Your task to perform on an android device: turn off picture-in-picture Image 0: 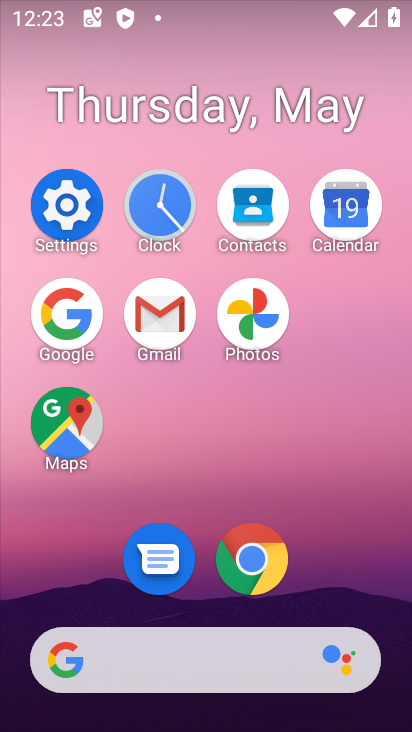
Step 0: click (243, 565)
Your task to perform on an android device: turn off picture-in-picture Image 1: 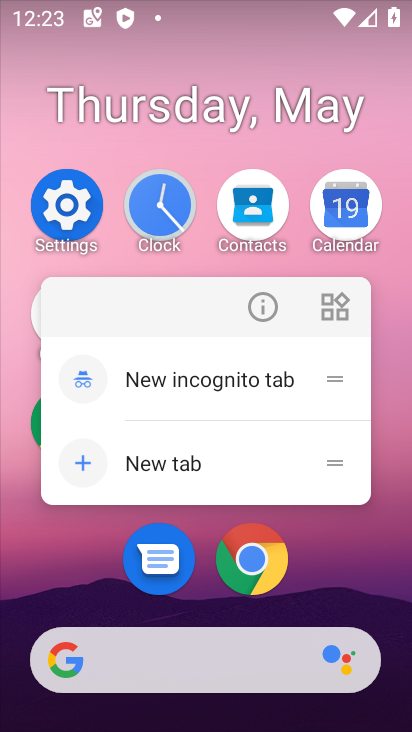
Step 1: click (277, 317)
Your task to perform on an android device: turn off picture-in-picture Image 2: 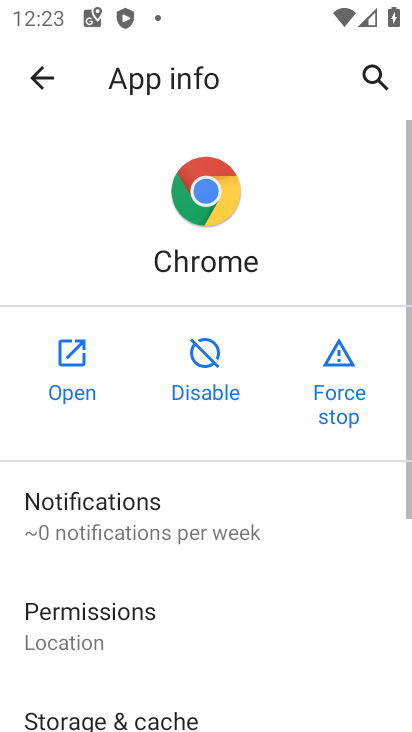
Step 2: drag from (160, 599) to (412, 101)
Your task to perform on an android device: turn off picture-in-picture Image 3: 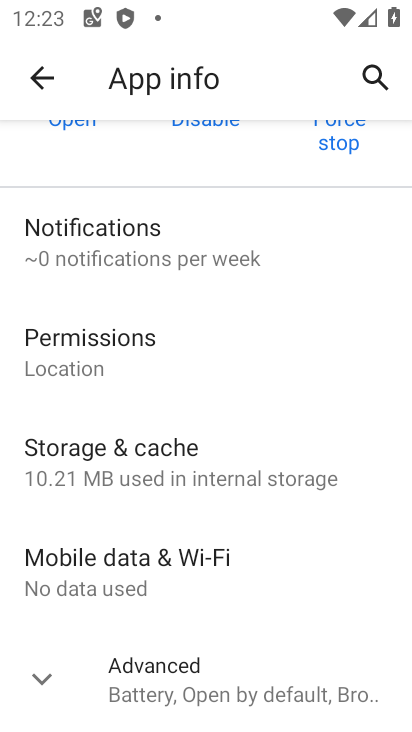
Step 3: click (144, 678)
Your task to perform on an android device: turn off picture-in-picture Image 4: 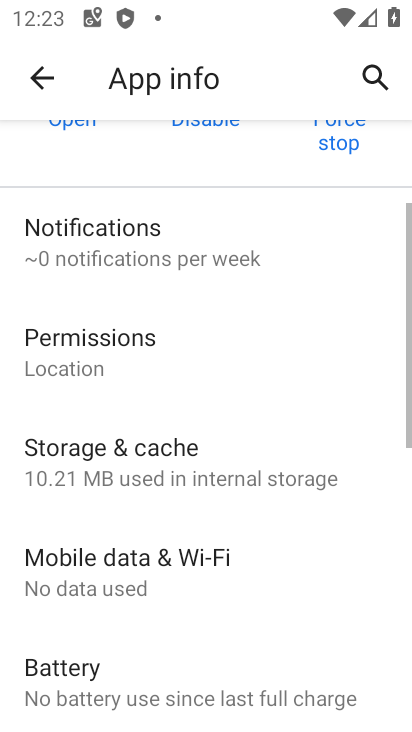
Step 4: drag from (272, 607) to (405, 250)
Your task to perform on an android device: turn off picture-in-picture Image 5: 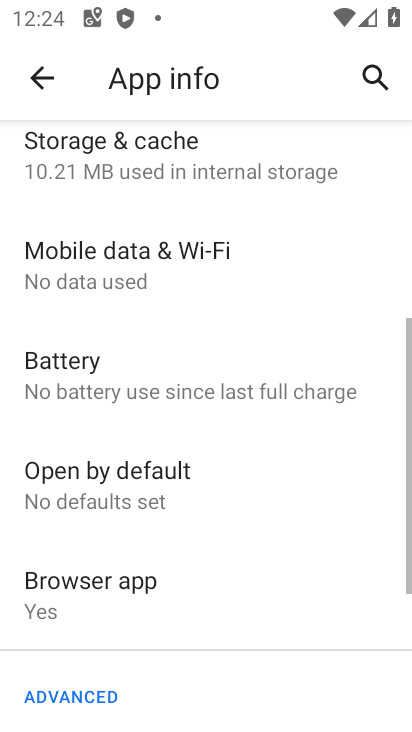
Step 5: drag from (208, 587) to (373, 77)
Your task to perform on an android device: turn off picture-in-picture Image 6: 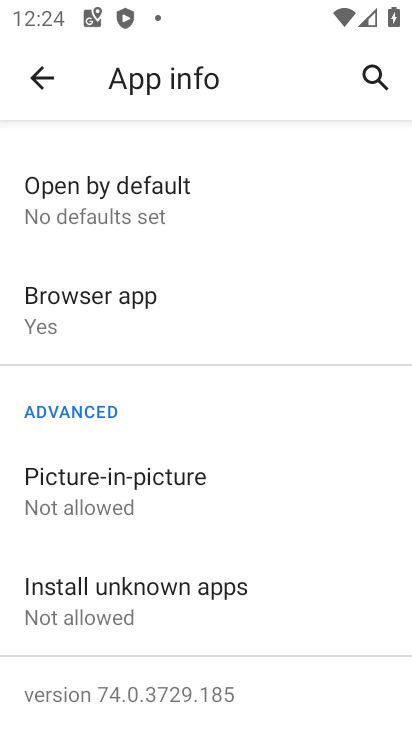
Step 6: click (190, 500)
Your task to perform on an android device: turn off picture-in-picture Image 7: 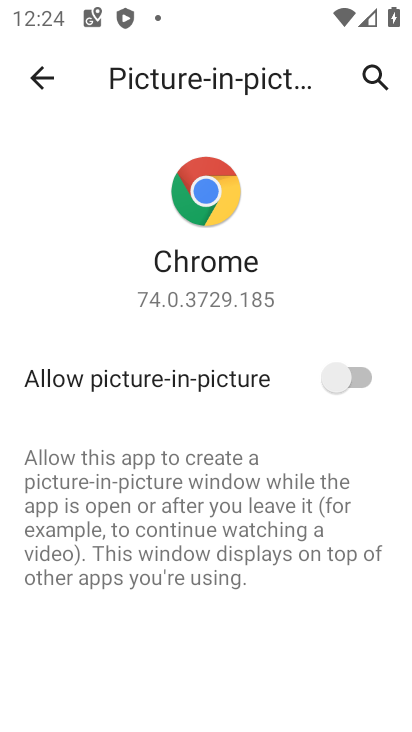
Step 7: task complete